Your task to perform on an android device: What's the news in Pakistan? Image 0: 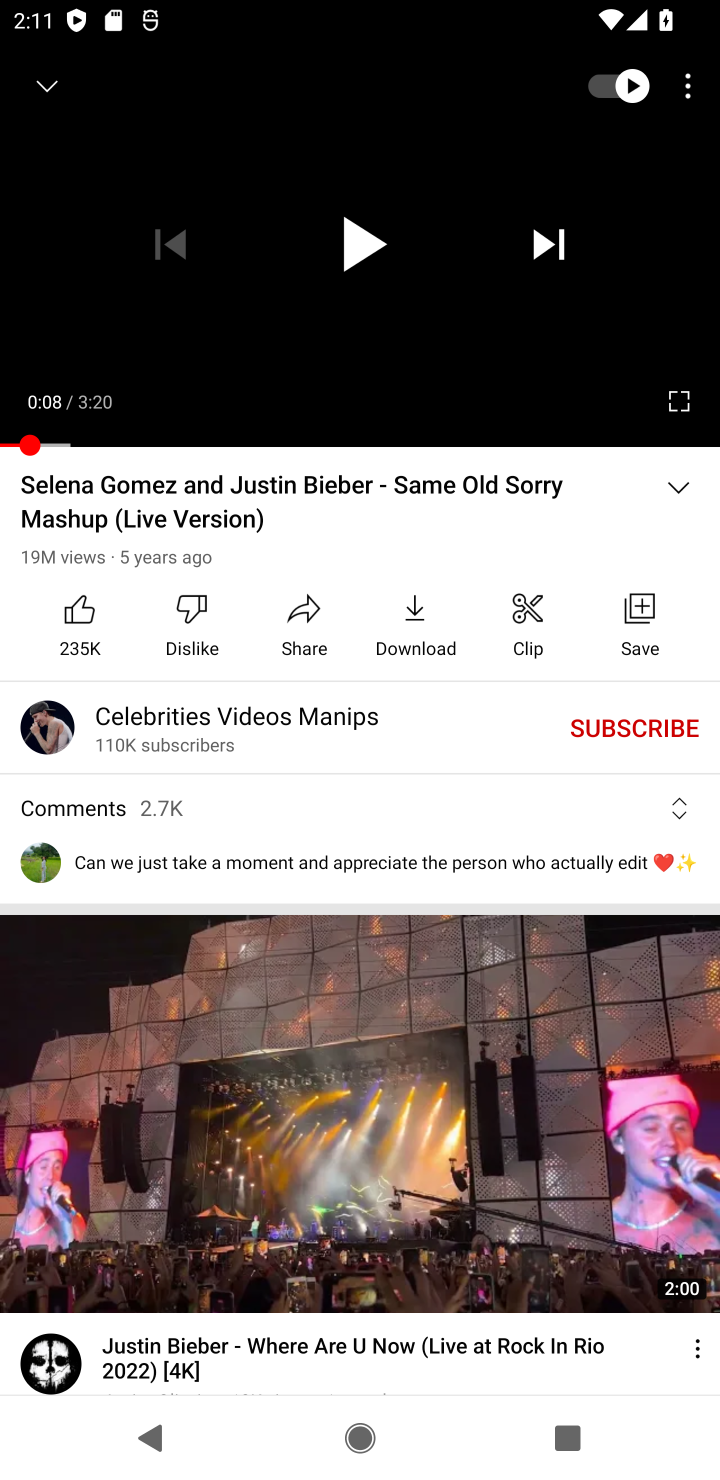
Step 0: press home button
Your task to perform on an android device: What's the news in Pakistan? Image 1: 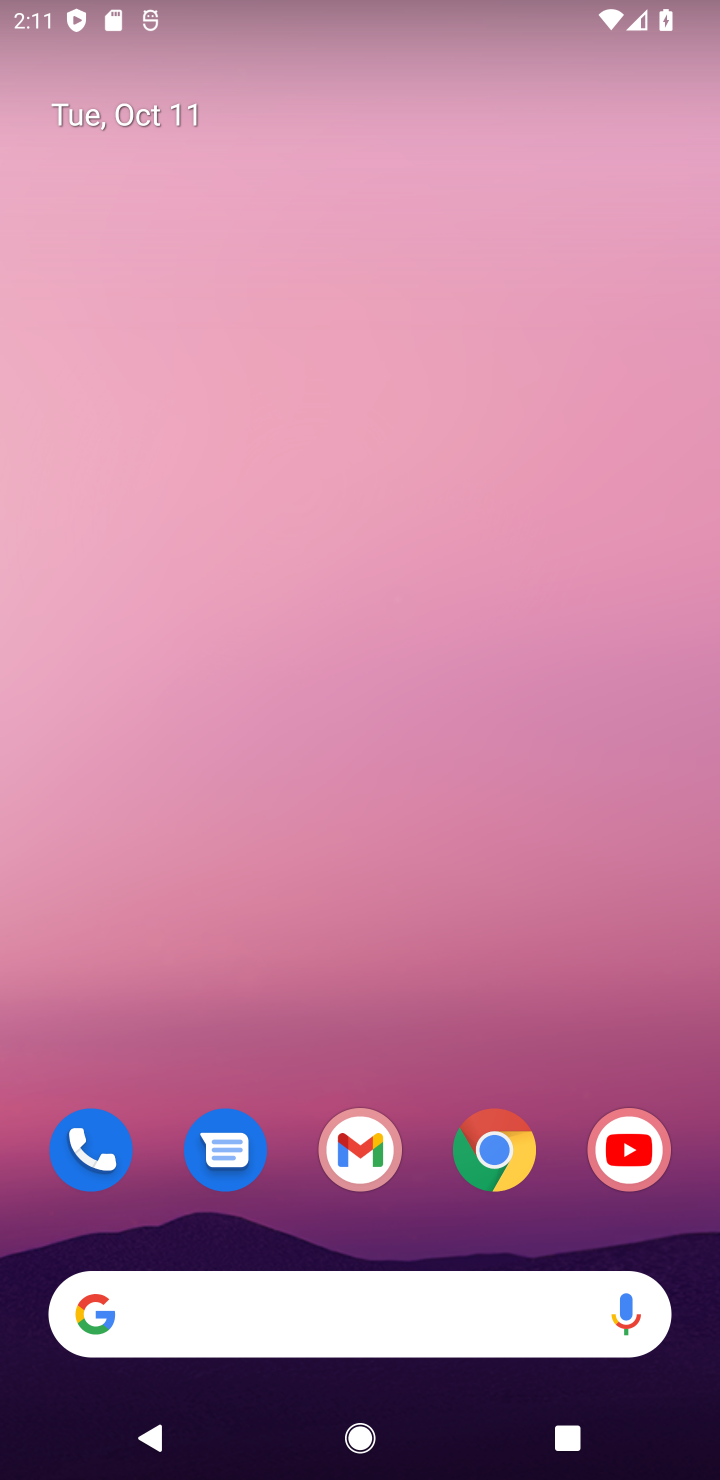
Step 1: drag from (278, 1250) to (343, 469)
Your task to perform on an android device: What's the news in Pakistan? Image 2: 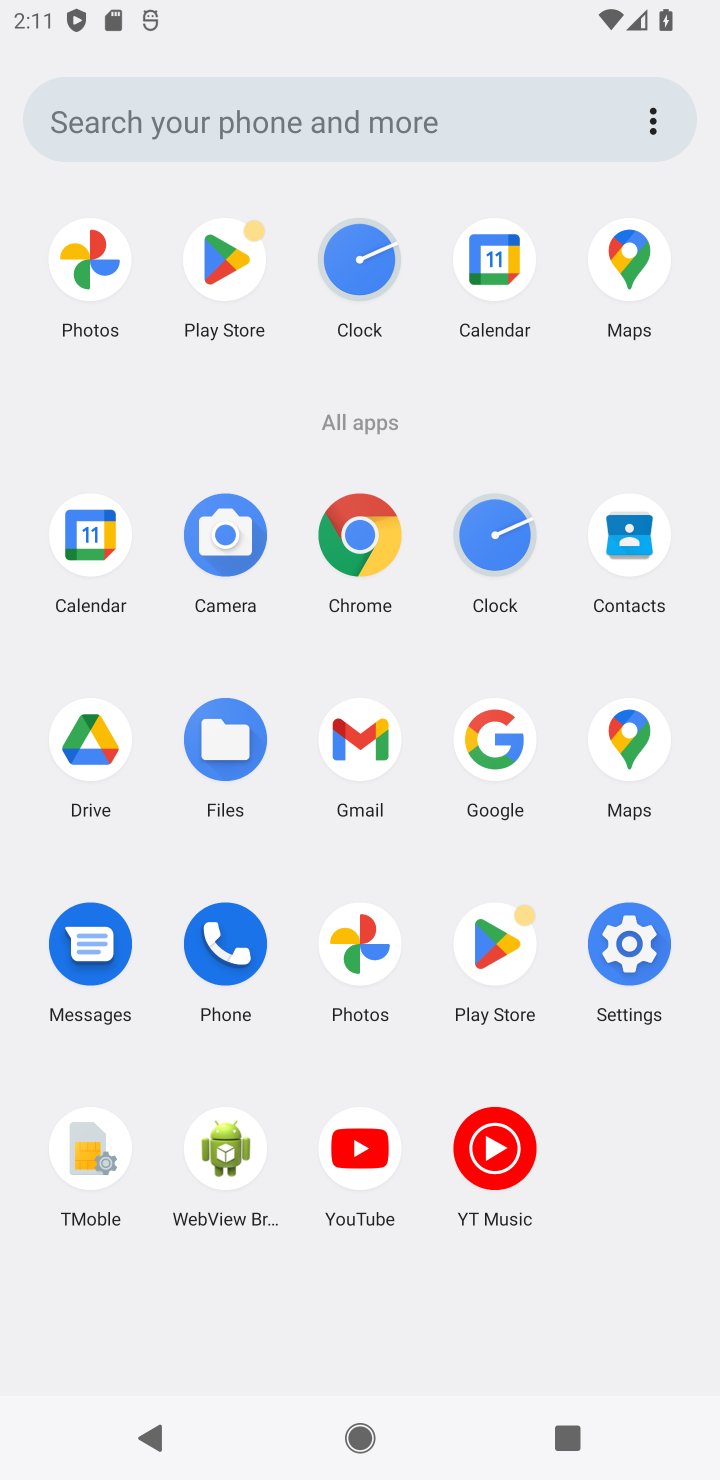
Step 2: click (477, 744)
Your task to perform on an android device: What's the news in Pakistan? Image 3: 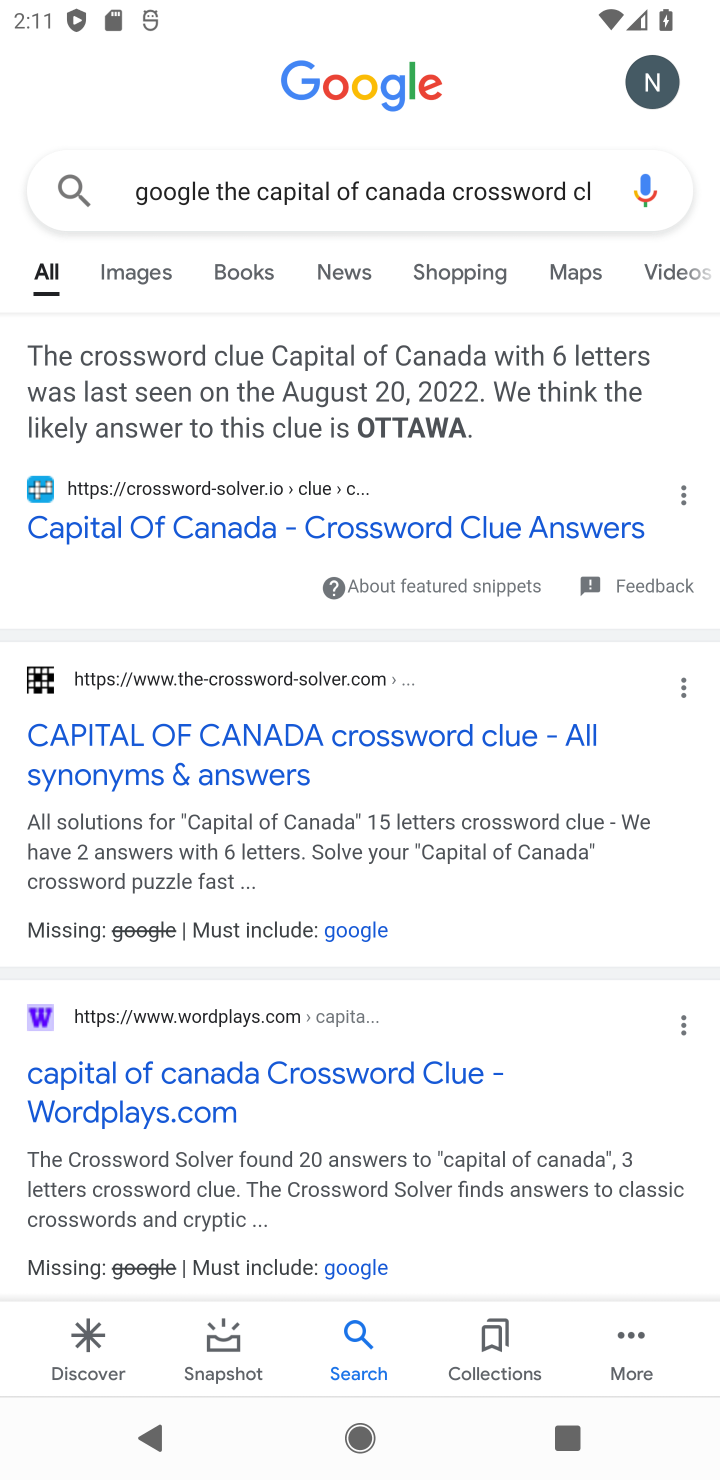
Step 3: click (551, 178)
Your task to perform on an android device: What's the news in Pakistan? Image 4: 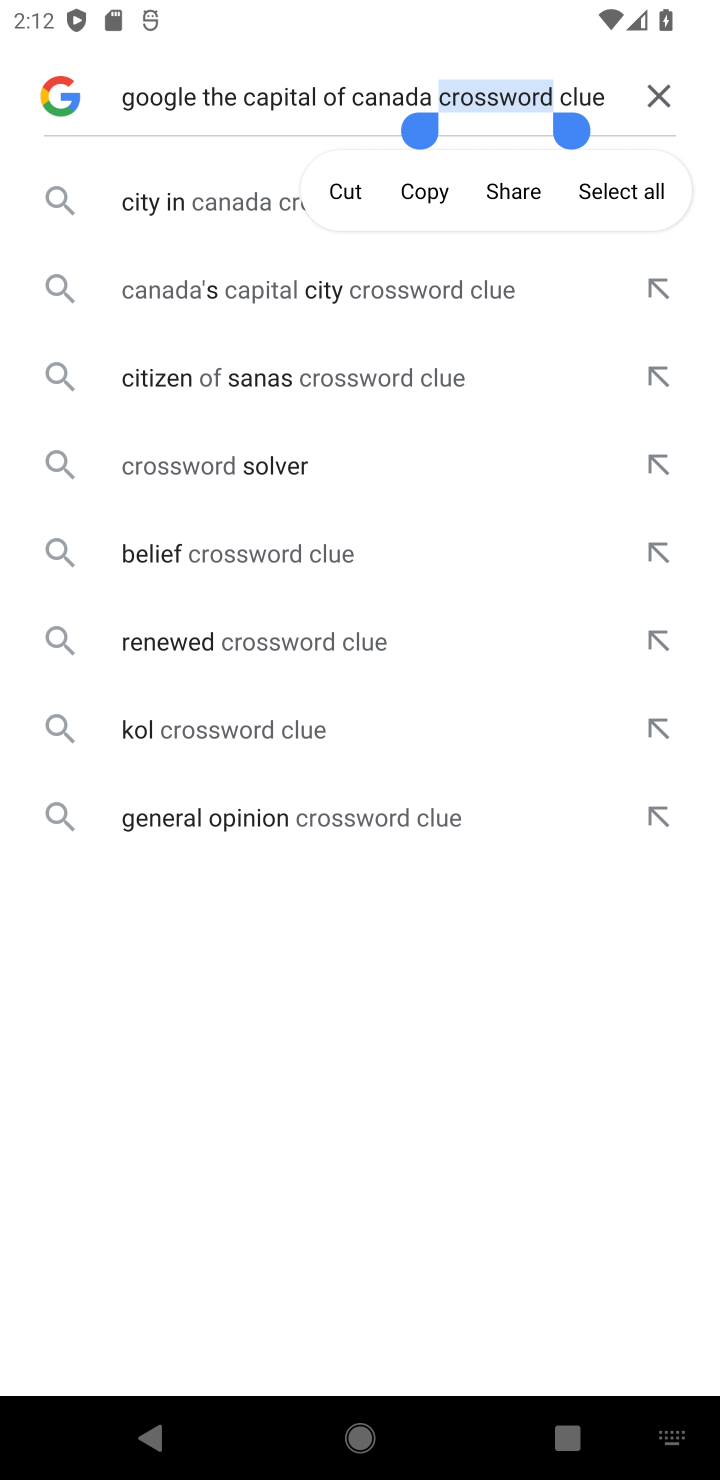
Step 4: click (652, 101)
Your task to perform on an android device: What's the news in Pakistan? Image 5: 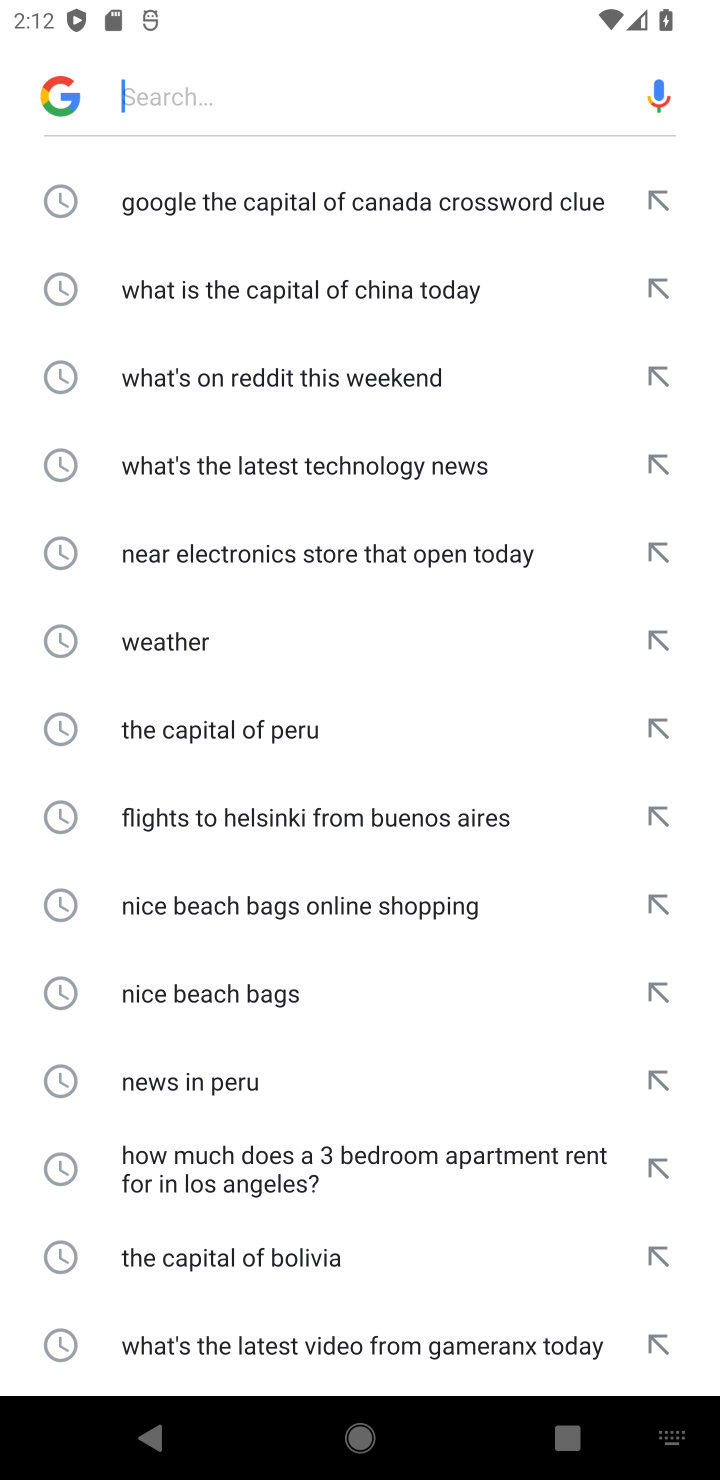
Step 5: type "What's the news in Pakistan?"
Your task to perform on an android device: What's the news in Pakistan? Image 6: 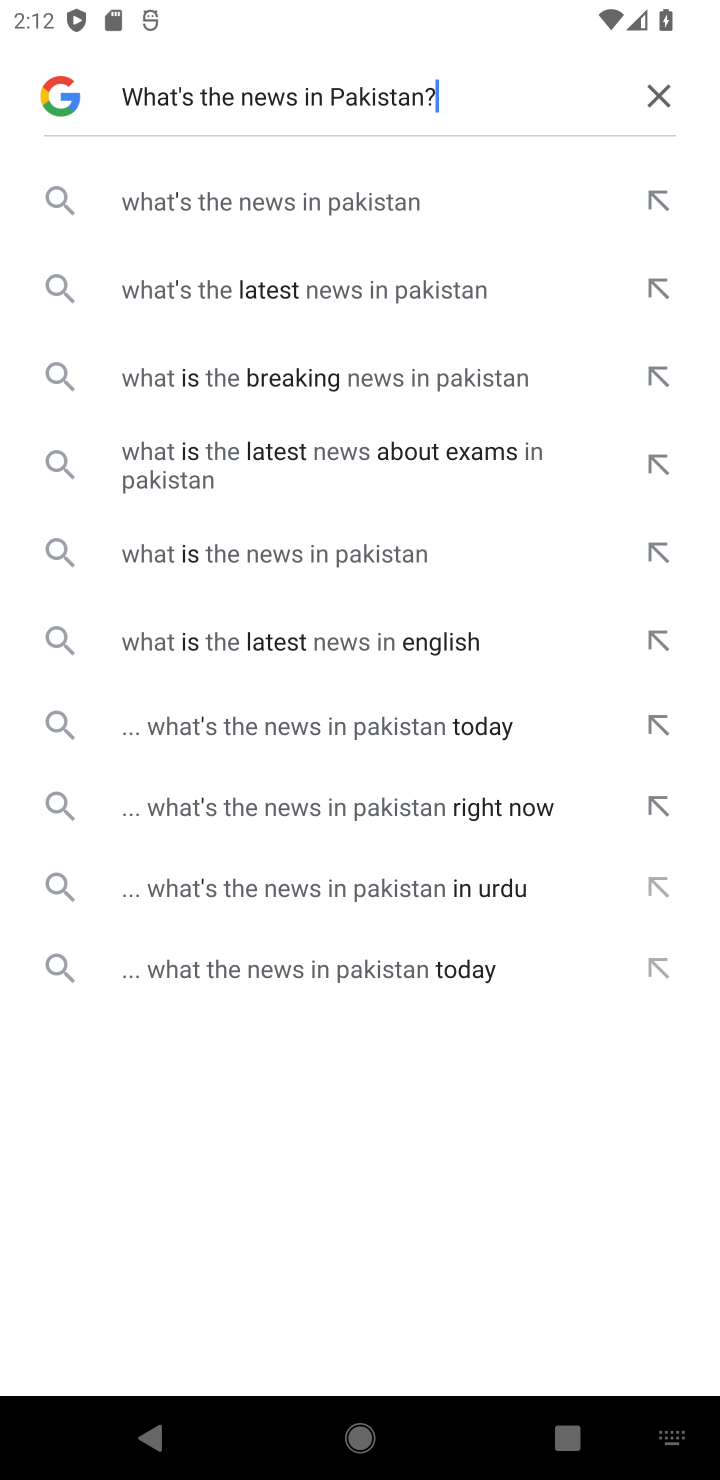
Step 6: click (316, 211)
Your task to perform on an android device: What's the news in Pakistan? Image 7: 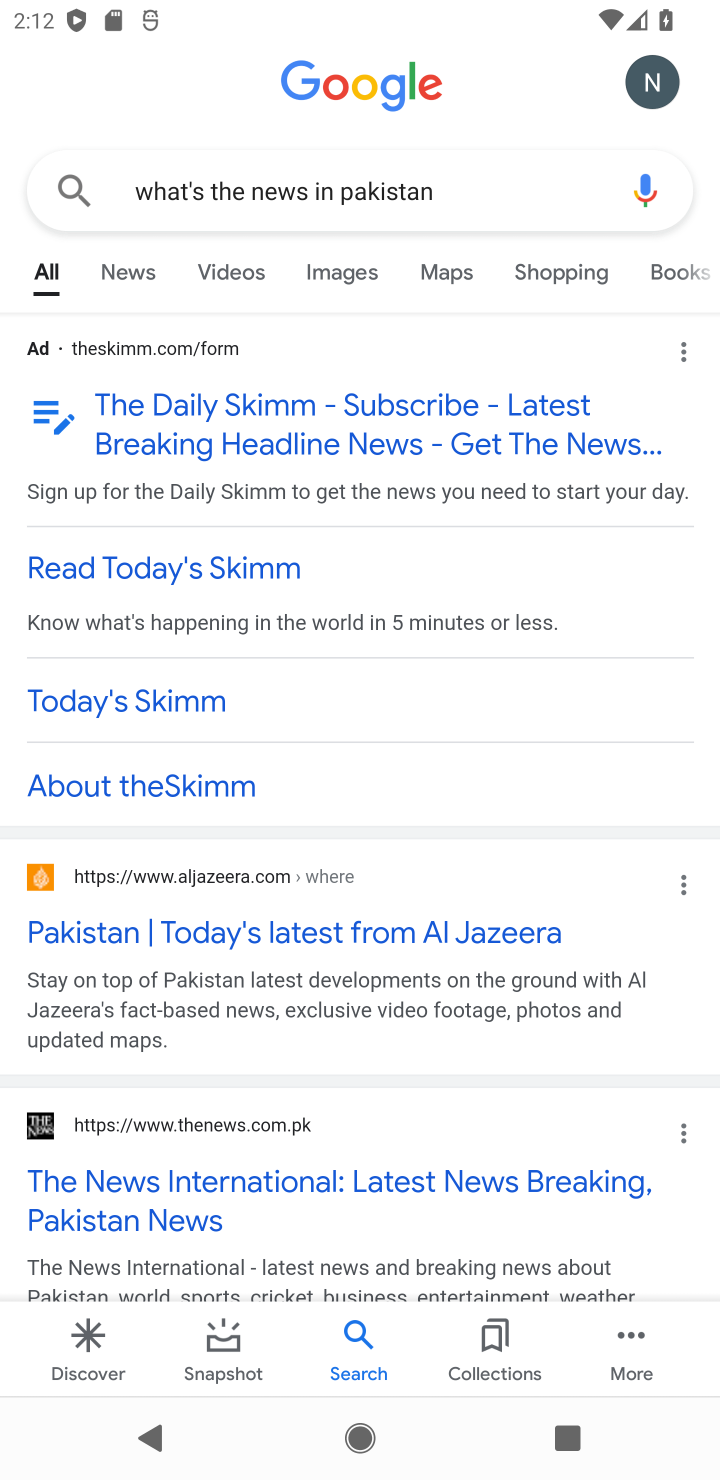
Step 7: click (195, 438)
Your task to perform on an android device: What's the news in Pakistan? Image 8: 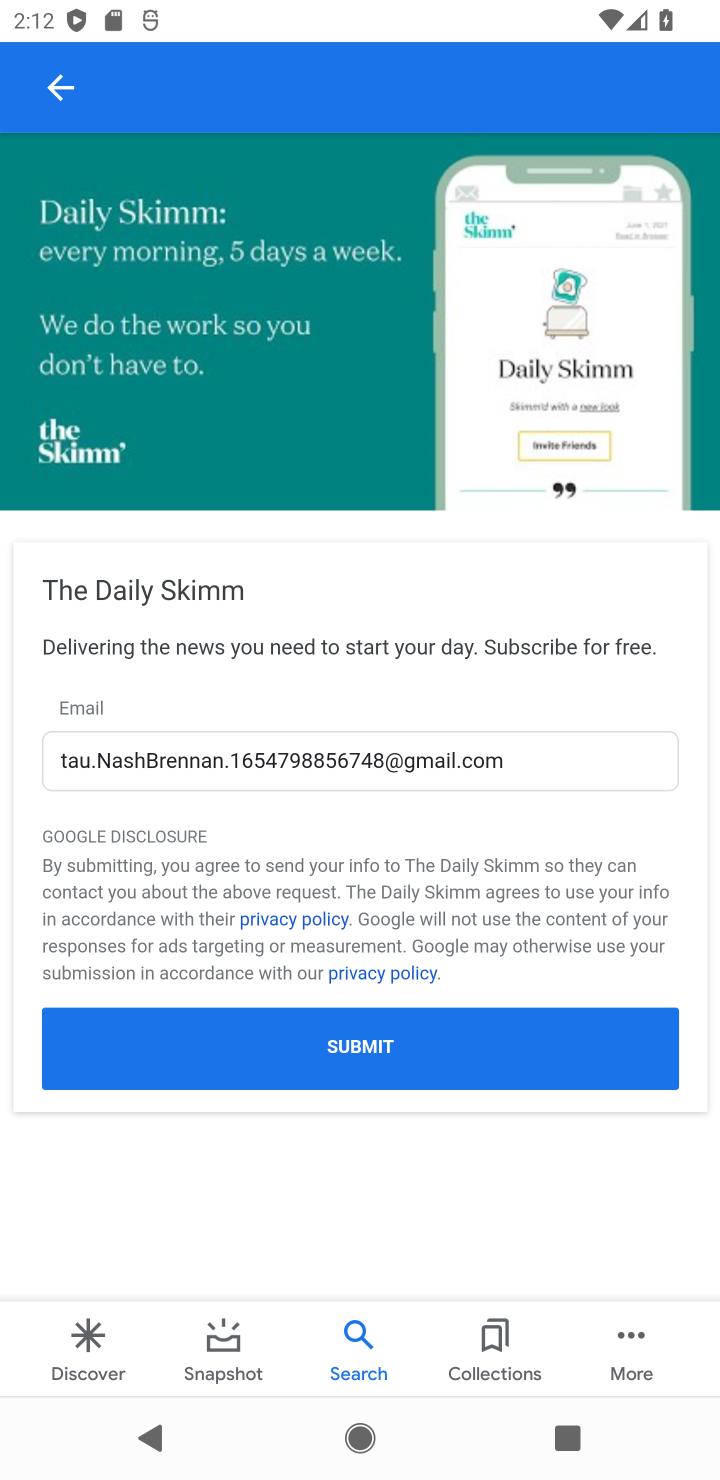
Step 8: task complete